Your task to perform on an android device: open sync settings in chrome Image 0: 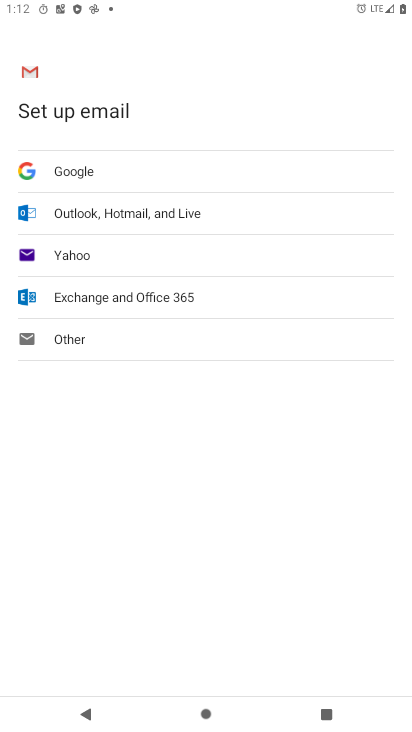
Step 0: press home button
Your task to perform on an android device: open sync settings in chrome Image 1: 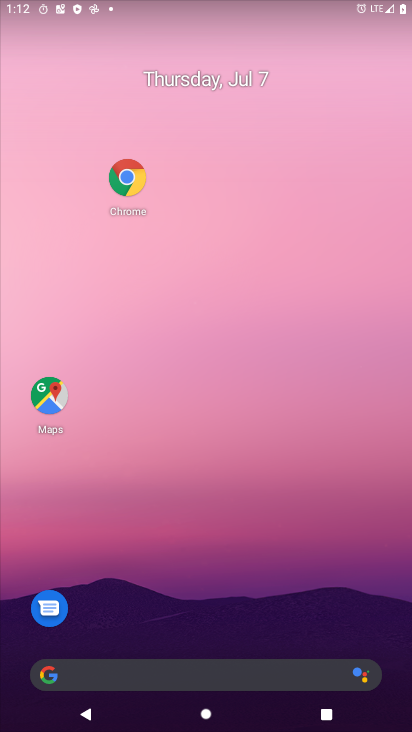
Step 1: drag from (194, 660) to (196, 207)
Your task to perform on an android device: open sync settings in chrome Image 2: 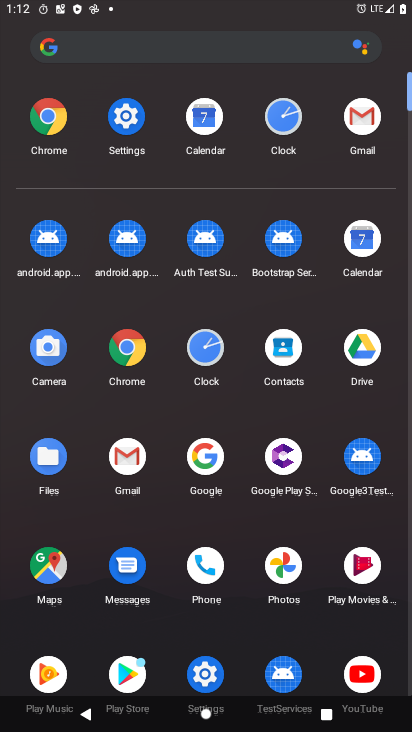
Step 2: click (133, 352)
Your task to perform on an android device: open sync settings in chrome Image 3: 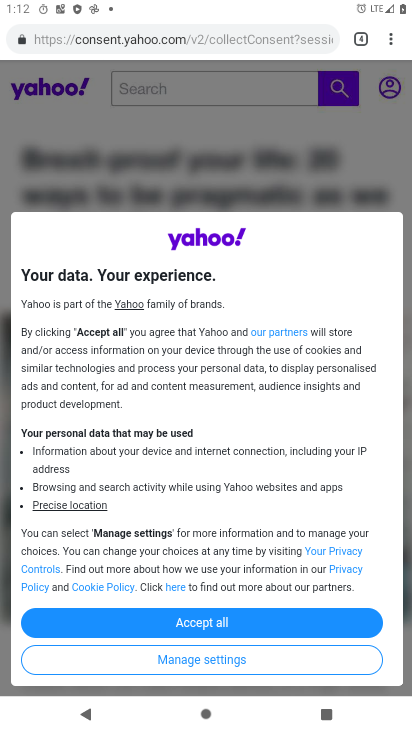
Step 3: click (389, 44)
Your task to perform on an android device: open sync settings in chrome Image 4: 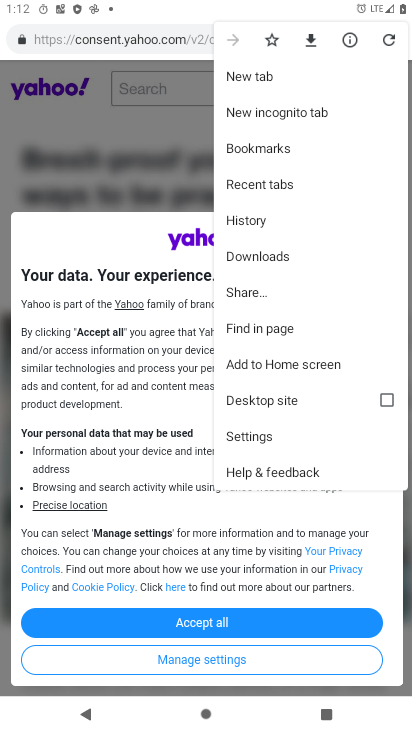
Step 4: click (271, 434)
Your task to perform on an android device: open sync settings in chrome Image 5: 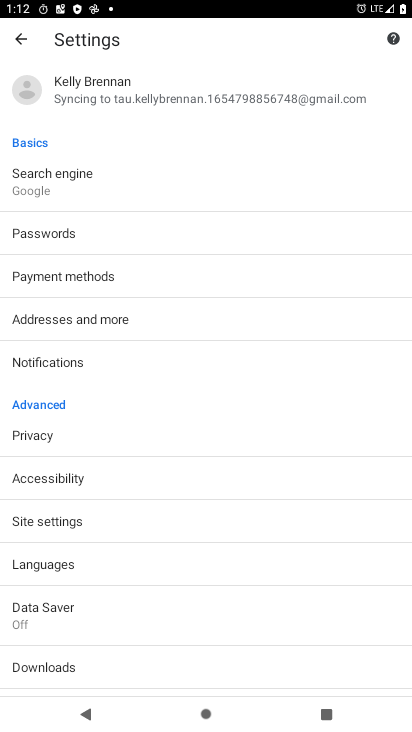
Step 5: click (83, 87)
Your task to perform on an android device: open sync settings in chrome Image 6: 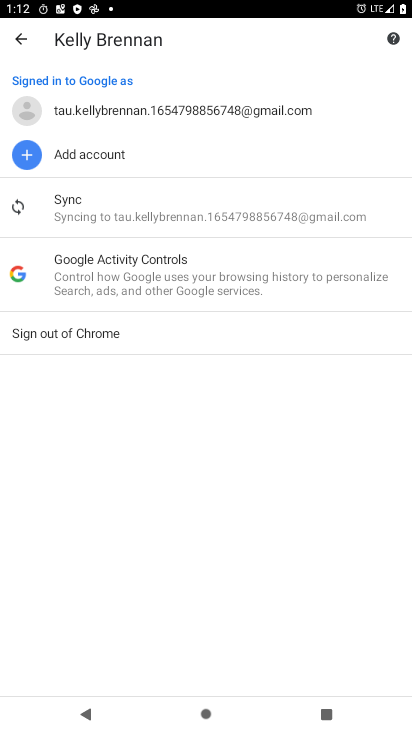
Step 6: click (102, 214)
Your task to perform on an android device: open sync settings in chrome Image 7: 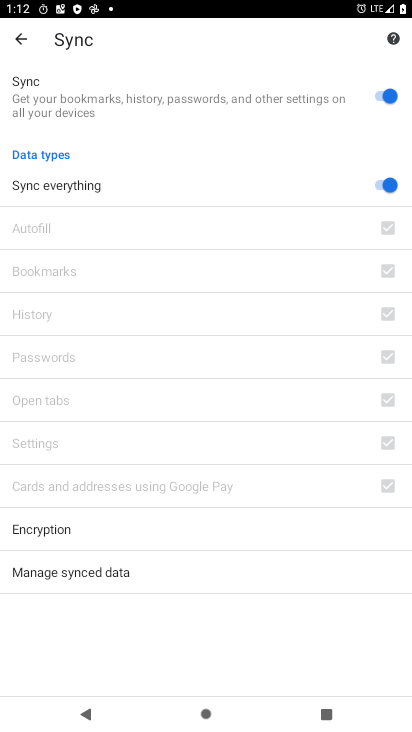
Step 7: task complete